Your task to perform on an android device: change the clock display to show seconds Image 0: 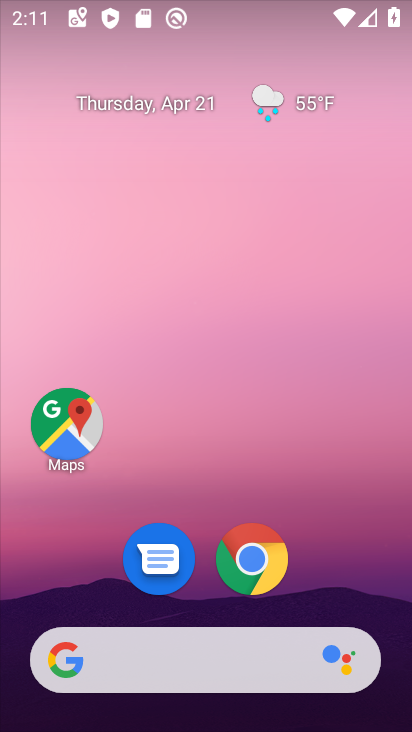
Step 0: drag from (190, 507) to (177, 67)
Your task to perform on an android device: change the clock display to show seconds Image 1: 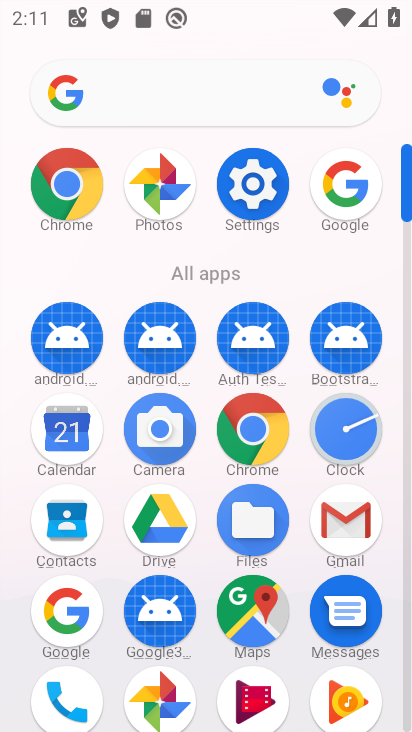
Step 1: click (350, 426)
Your task to perform on an android device: change the clock display to show seconds Image 2: 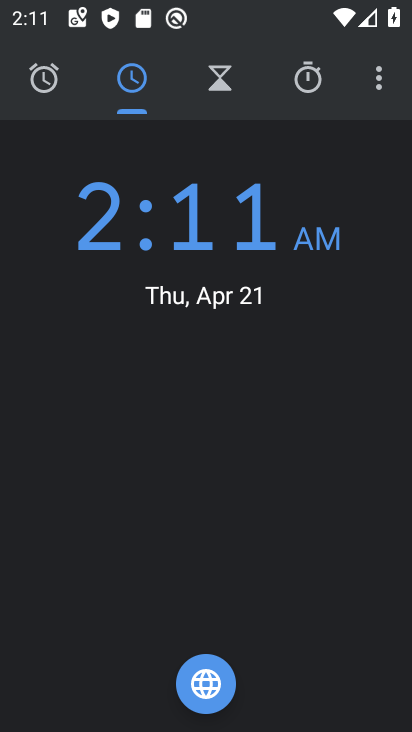
Step 2: click (369, 82)
Your task to perform on an android device: change the clock display to show seconds Image 3: 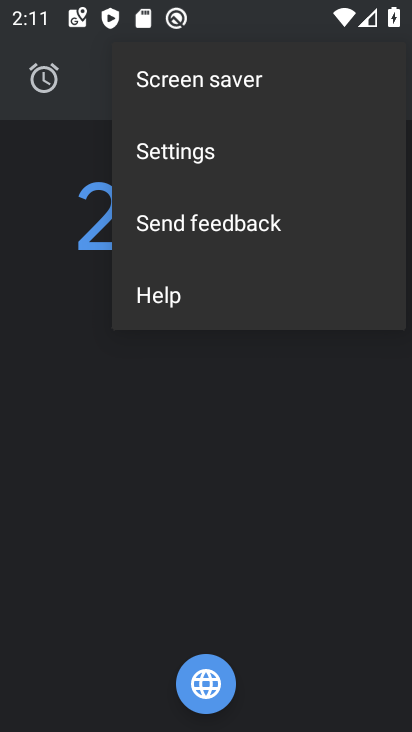
Step 3: click (245, 148)
Your task to perform on an android device: change the clock display to show seconds Image 4: 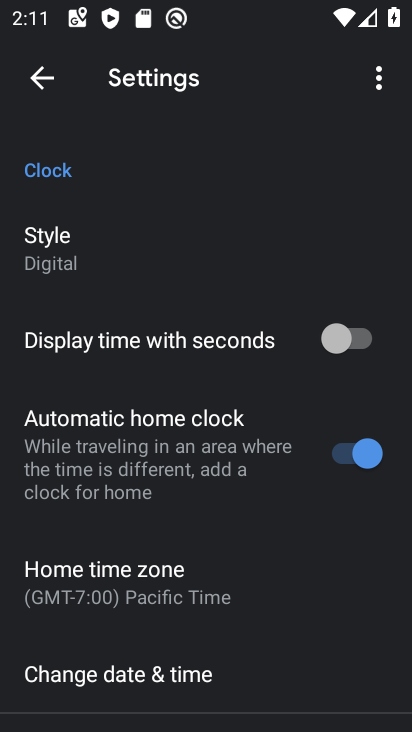
Step 4: click (350, 335)
Your task to perform on an android device: change the clock display to show seconds Image 5: 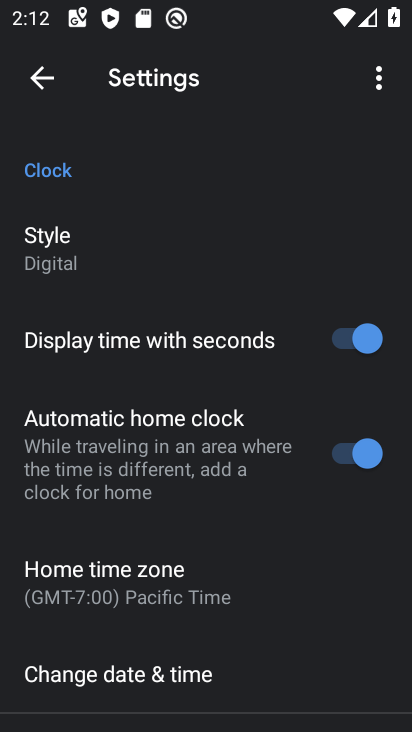
Step 5: task complete